Your task to perform on an android device: delete browsing data in the chrome app Image 0: 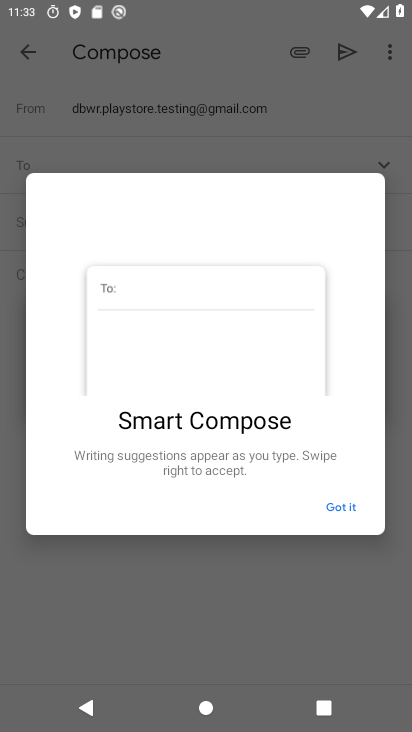
Step 0: press home button
Your task to perform on an android device: delete browsing data in the chrome app Image 1: 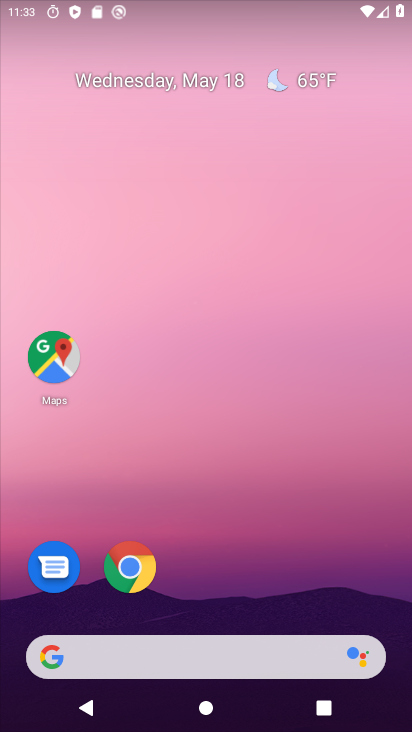
Step 1: click (140, 566)
Your task to perform on an android device: delete browsing data in the chrome app Image 2: 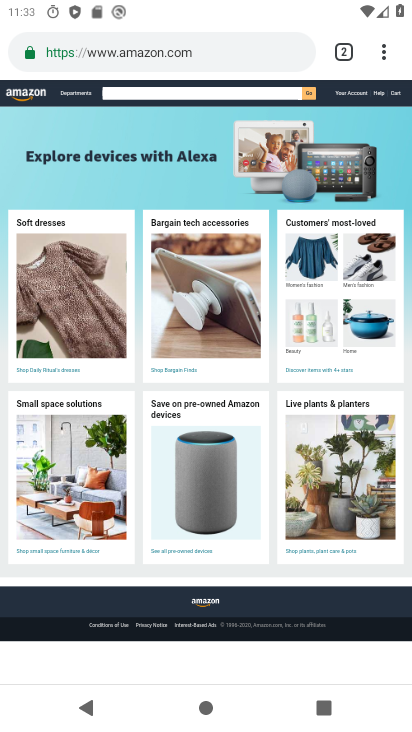
Step 2: click (389, 51)
Your task to perform on an android device: delete browsing data in the chrome app Image 3: 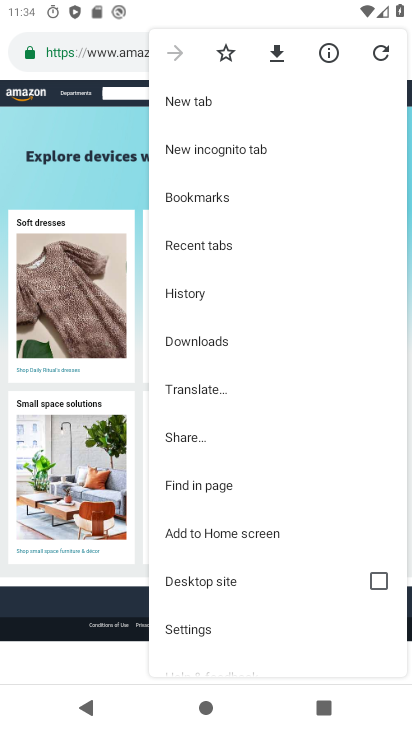
Step 3: click (197, 289)
Your task to perform on an android device: delete browsing data in the chrome app Image 4: 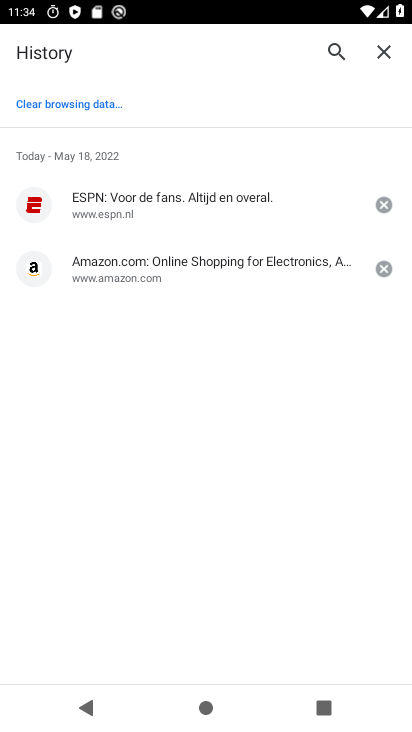
Step 4: click (90, 99)
Your task to perform on an android device: delete browsing data in the chrome app Image 5: 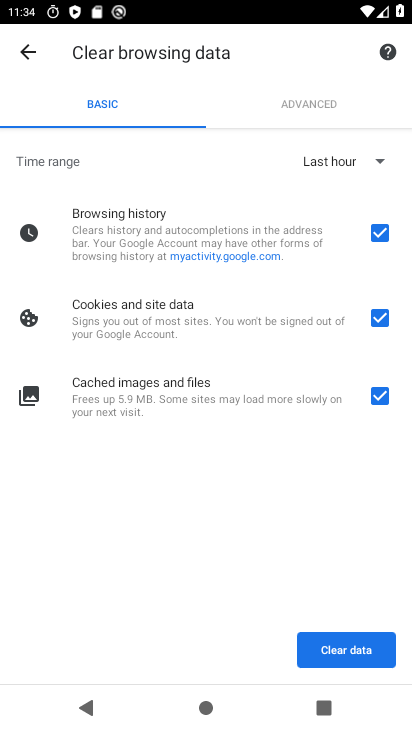
Step 5: click (354, 648)
Your task to perform on an android device: delete browsing data in the chrome app Image 6: 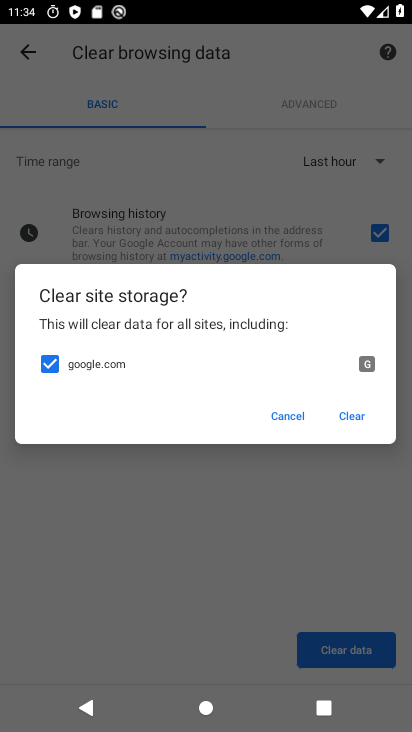
Step 6: click (353, 415)
Your task to perform on an android device: delete browsing data in the chrome app Image 7: 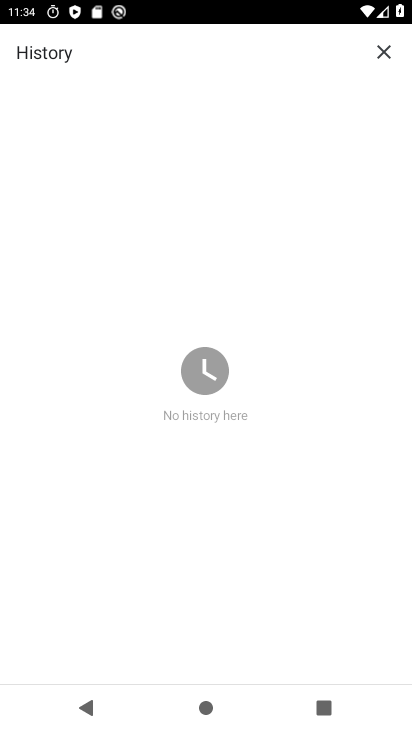
Step 7: task complete